Your task to perform on an android device: turn off translation in the chrome app Image 0: 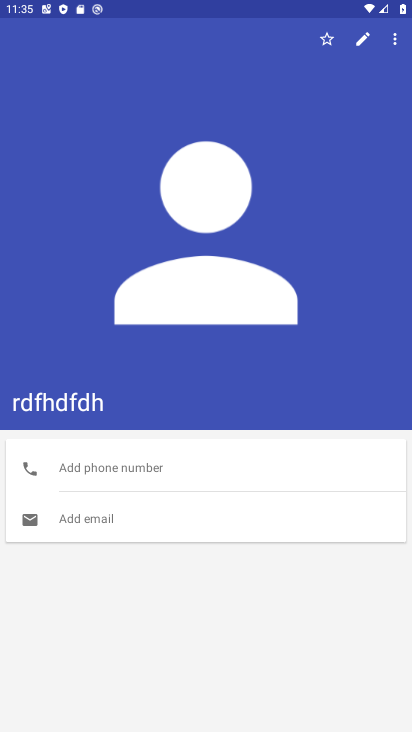
Step 0: press home button
Your task to perform on an android device: turn off translation in the chrome app Image 1: 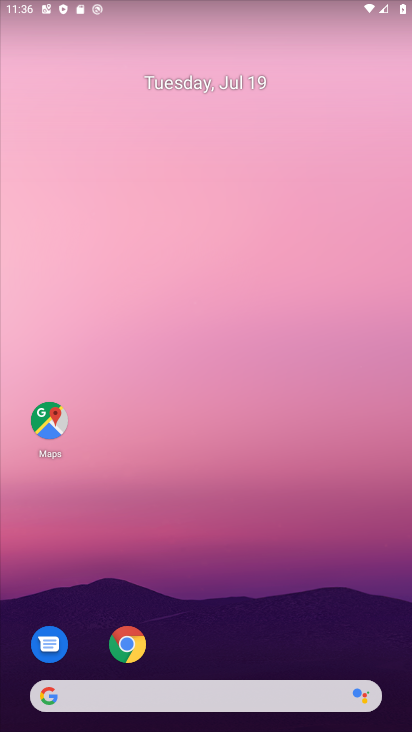
Step 1: click (120, 647)
Your task to perform on an android device: turn off translation in the chrome app Image 2: 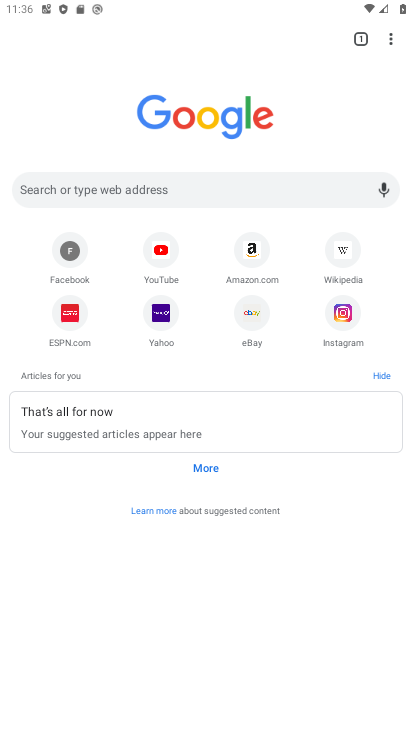
Step 2: click (391, 40)
Your task to perform on an android device: turn off translation in the chrome app Image 3: 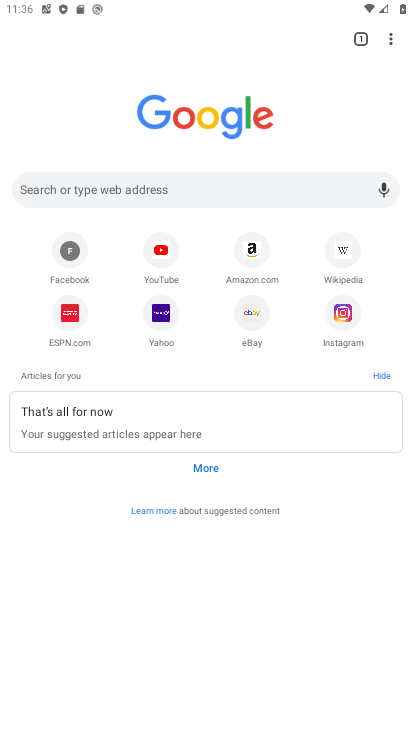
Step 3: click (389, 36)
Your task to perform on an android device: turn off translation in the chrome app Image 4: 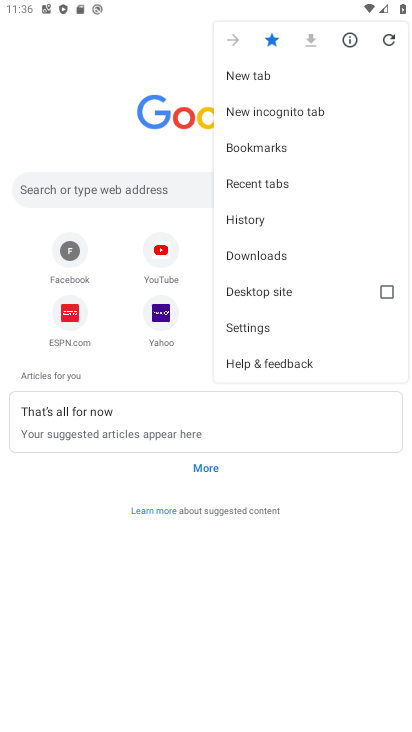
Step 4: click (239, 320)
Your task to perform on an android device: turn off translation in the chrome app Image 5: 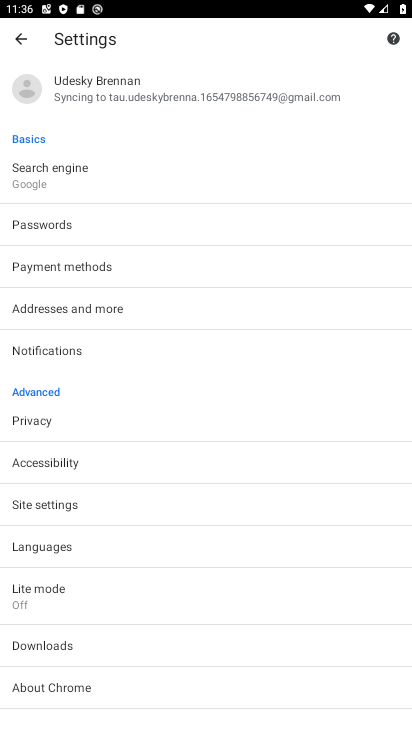
Step 5: click (16, 537)
Your task to perform on an android device: turn off translation in the chrome app Image 6: 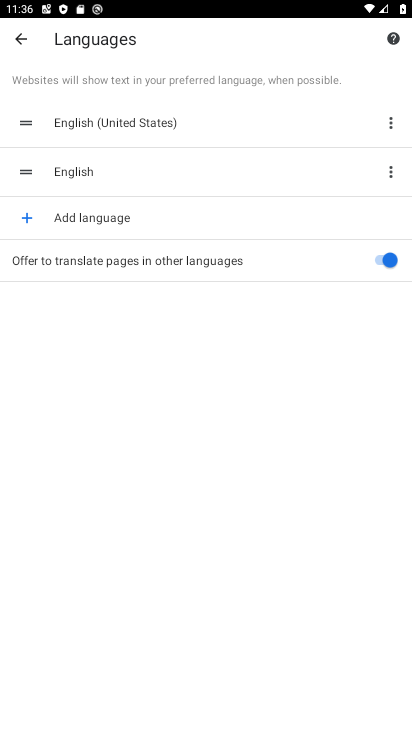
Step 6: task complete